Your task to perform on an android device: Open maps Image 0: 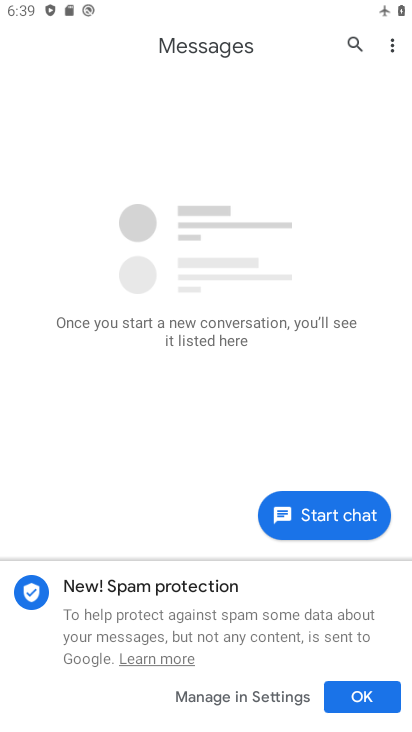
Step 0: press home button
Your task to perform on an android device: Open maps Image 1: 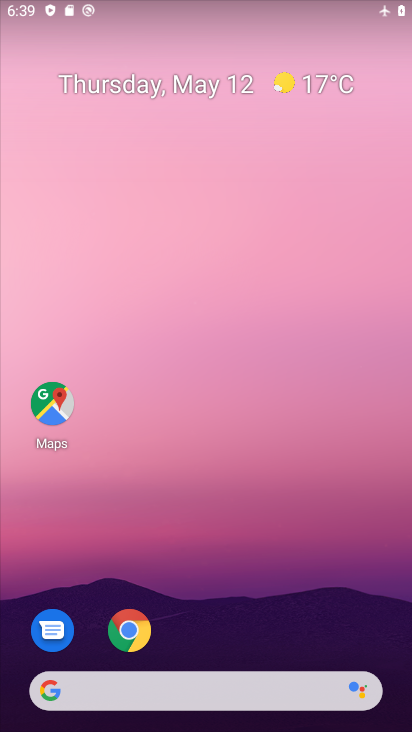
Step 1: drag from (377, 630) to (264, 260)
Your task to perform on an android device: Open maps Image 2: 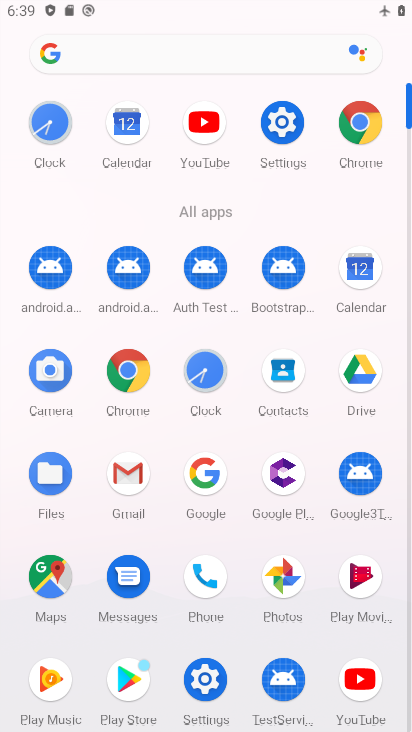
Step 2: click (58, 600)
Your task to perform on an android device: Open maps Image 3: 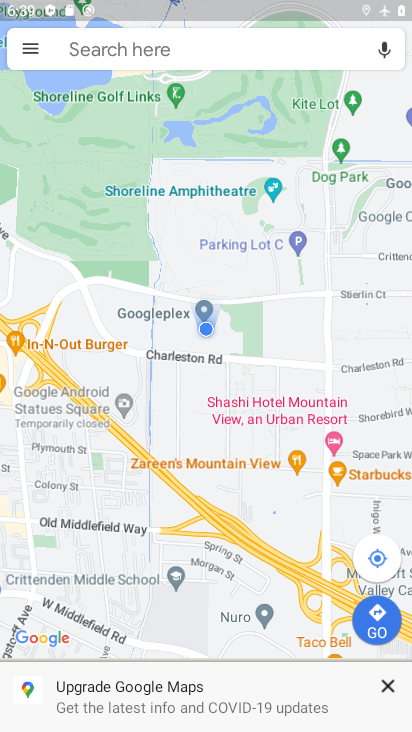
Step 3: task complete